Your task to perform on an android device: Go to CNN.com Image 0: 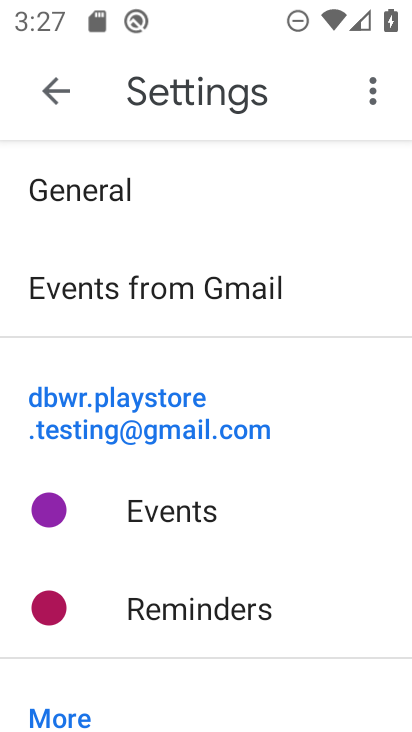
Step 0: press home button
Your task to perform on an android device: Go to CNN.com Image 1: 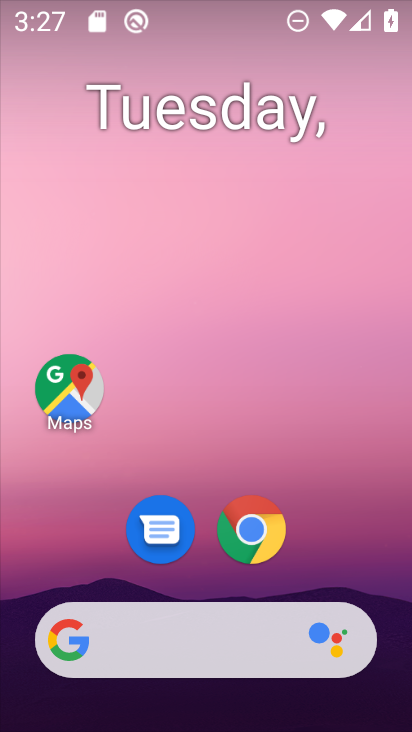
Step 1: click (274, 526)
Your task to perform on an android device: Go to CNN.com Image 2: 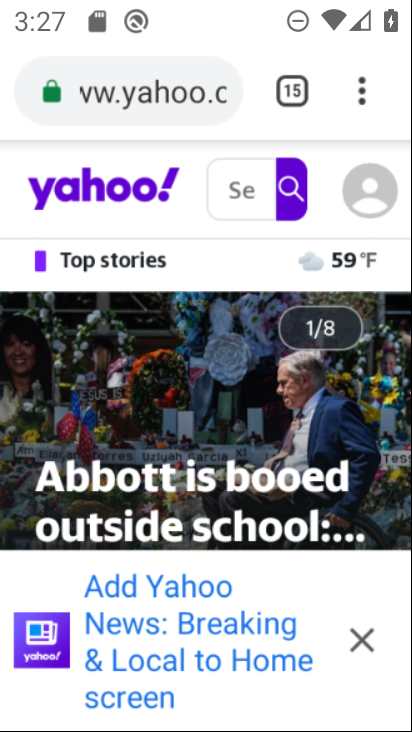
Step 2: click (272, 527)
Your task to perform on an android device: Go to CNN.com Image 3: 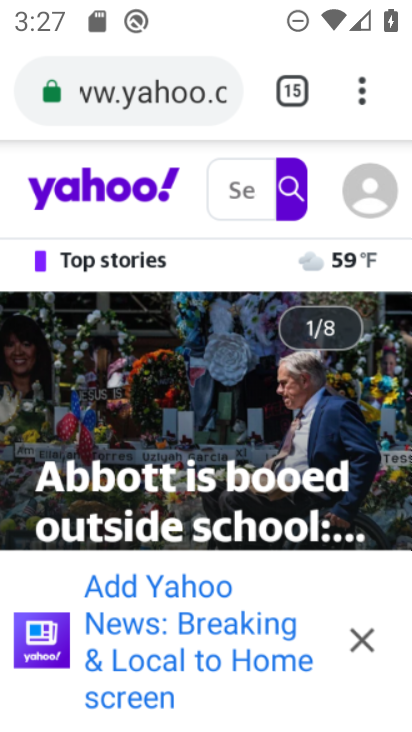
Step 3: click (354, 96)
Your task to perform on an android device: Go to CNN.com Image 4: 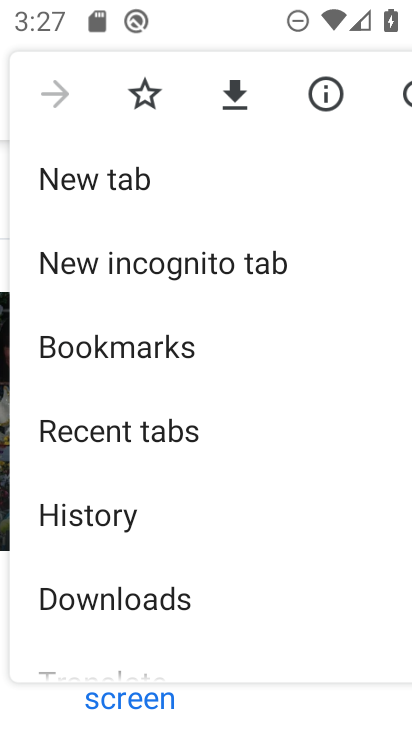
Step 4: click (109, 165)
Your task to perform on an android device: Go to CNN.com Image 5: 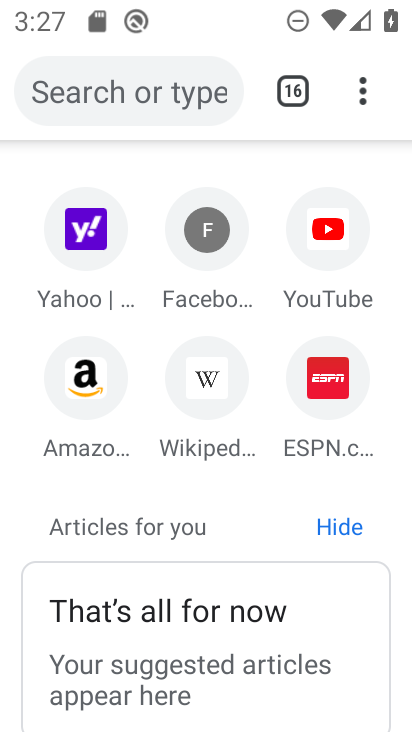
Step 5: click (142, 70)
Your task to perform on an android device: Go to CNN.com Image 6: 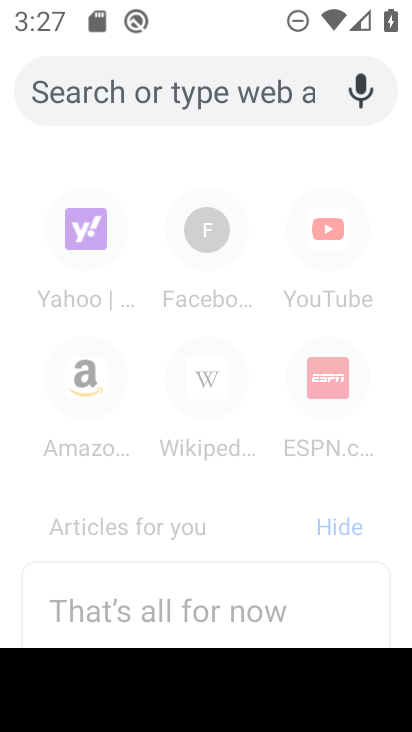
Step 6: type " CNN.com"
Your task to perform on an android device: Go to CNN.com Image 7: 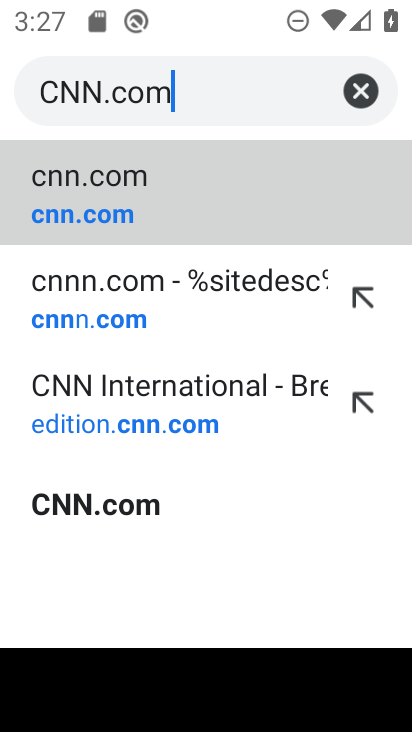
Step 7: click (146, 209)
Your task to perform on an android device: Go to CNN.com Image 8: 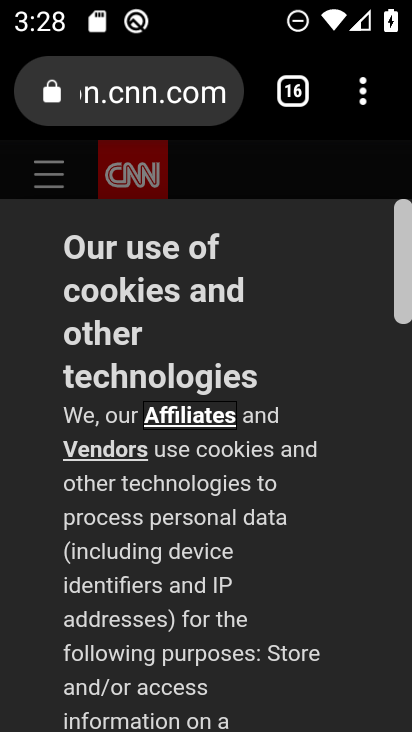
Step 8: task complete